Your task to perform on an android device: find snoozed emails in the gmail app Image 0: 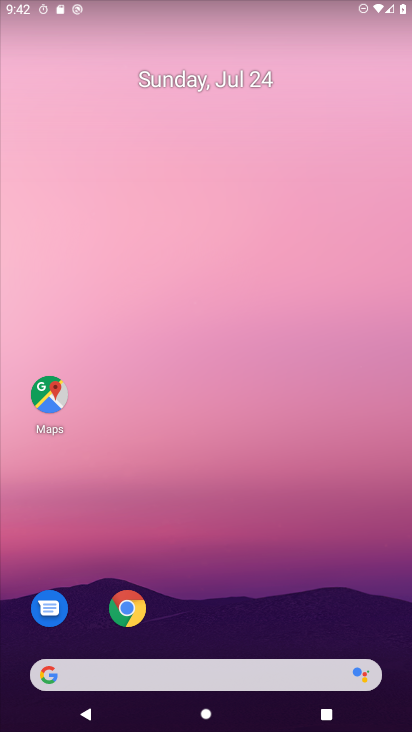
Step 0: drag from (167, 599) to (111, 0)
Your task to perform on an android device: find snoozed emails in the gmail app Image 1: 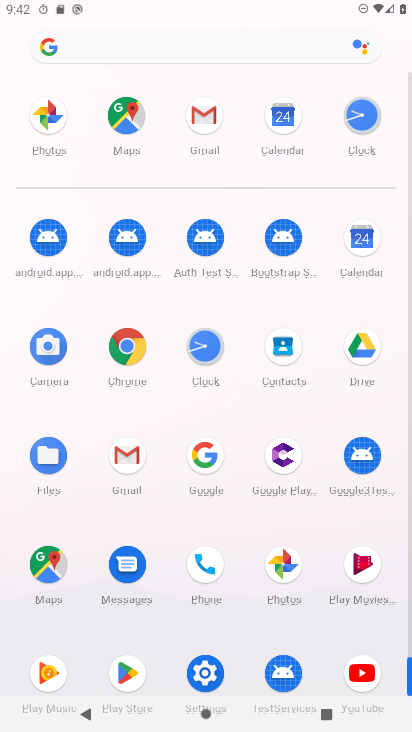
Step 1: click (133, 451)
Your task to perform on an android device: find snoozed emails in the gmail app Image 2: 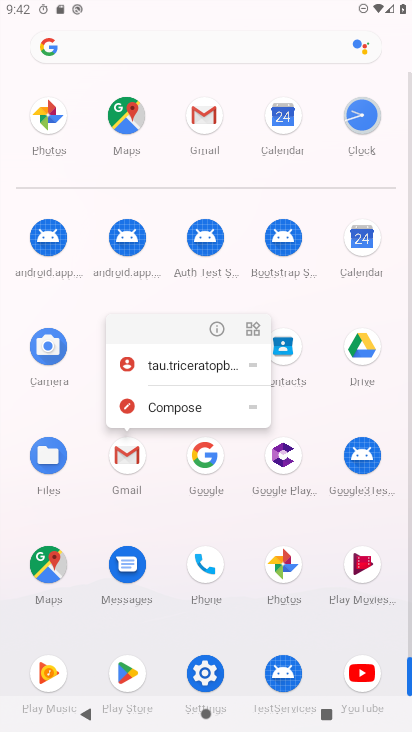
Step 2: click (222, 326)
Your task to perform on an android device: find snoozed emails in the gmail app Image 3: 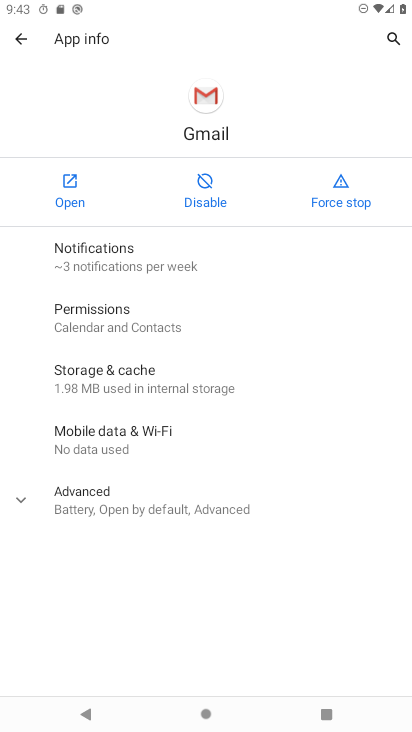
Step 3: click (62, 184)
Your task to perform on an android device: find snoozed emails in the gmail app Image 4: 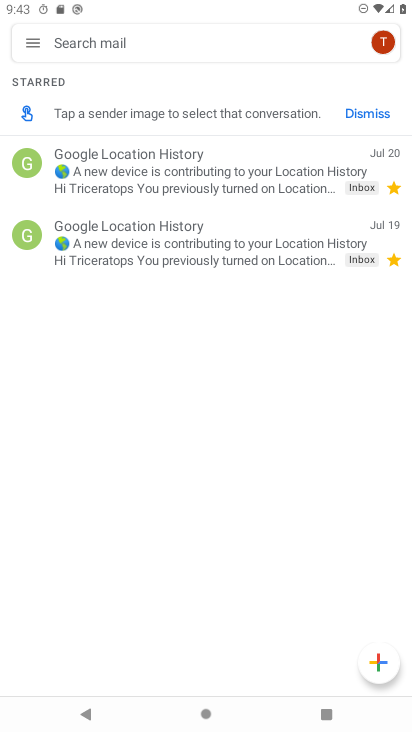
Step 4: click (29, 42)
Your task to perform on an android device: find snoozed emails in the gmail app Image 5: 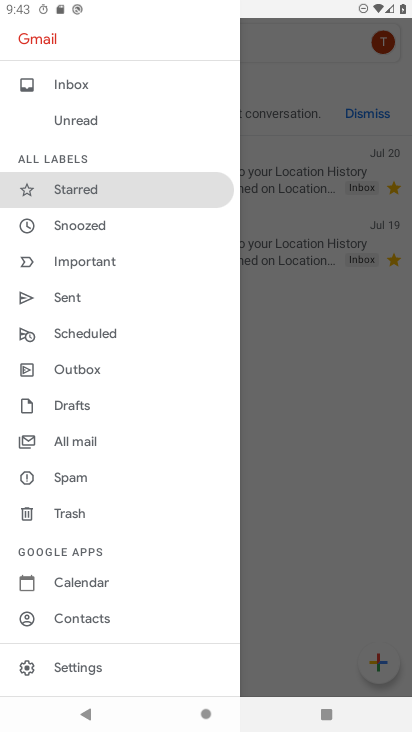
Step 5: click (110, 230)
Your task to perform on an android device: find snoozed emails in the gmail app Image 6: 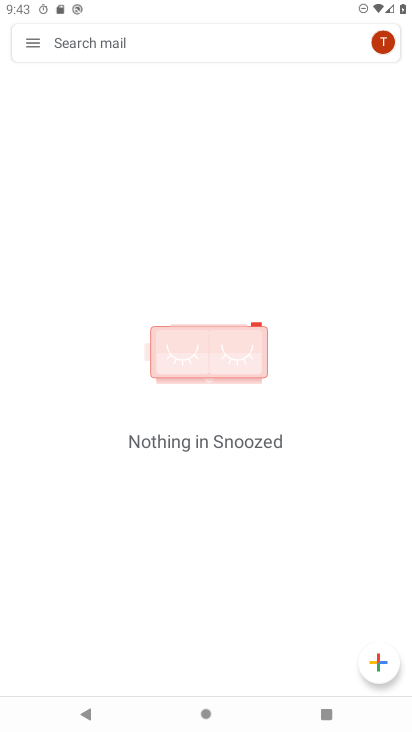
Step 6: drag from (201, 475) to (218, 310)
Your task to perform on an android device: find snoozed emails in the gmail app Image 7: 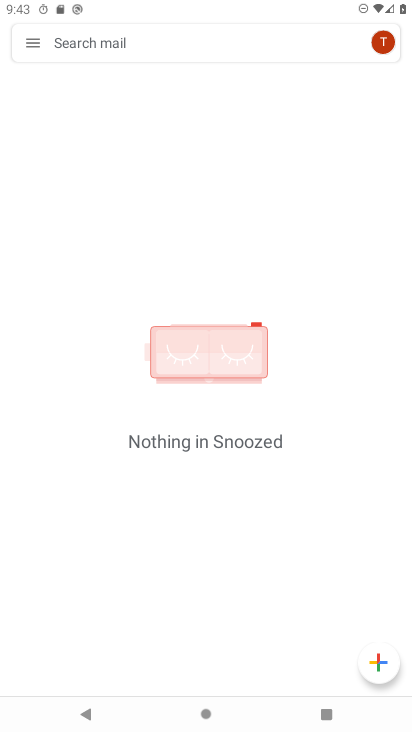
Step 7: drag from (229, 516) to (201, 301)
Your task to perform on an android device: find snoozed emails in the gmail app Image 8: 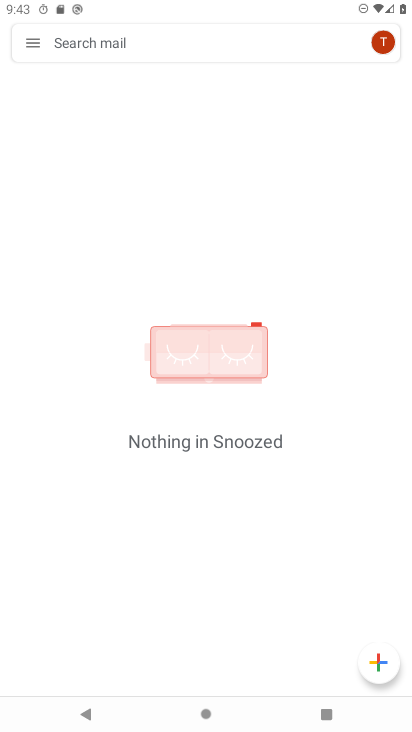
Step 8: click (200, 260)
Your task to perform on an android device: find snoozed emails in the gmail app Image 9: 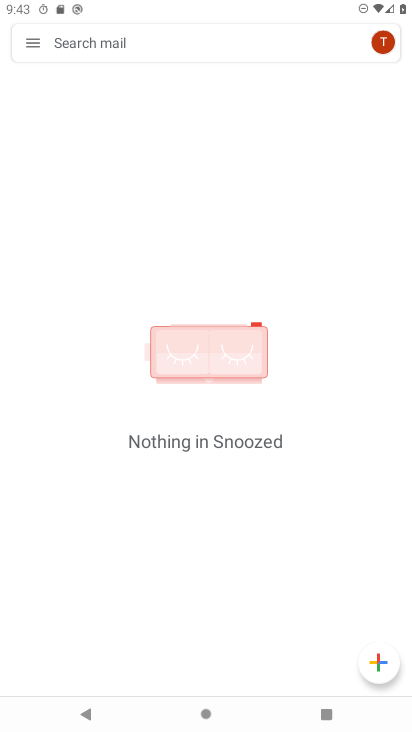
Step 9: task complete